Your task to perform on an android device: turn off javascript in the chrome app Image 0: 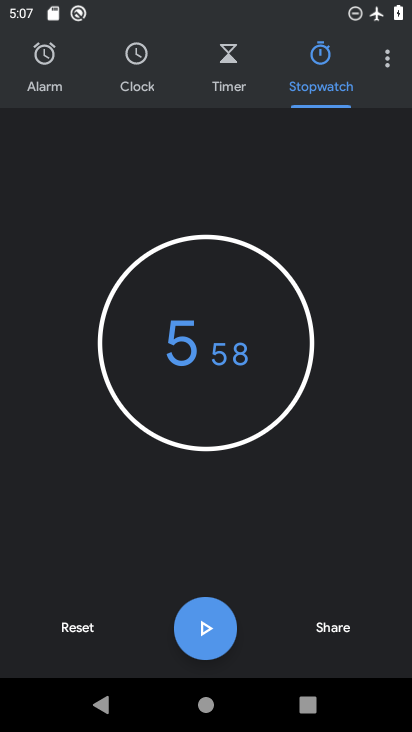
Step 0: press home button
Your task to perform on an android device: turn off javascript in the chrome app Image 1: 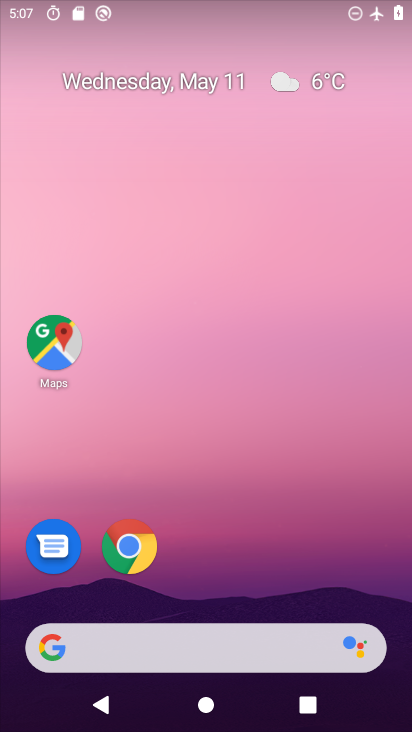
Step 1: click (128, 535)
Your task to perform on an android device: turn off javascript in the chrome app Image 2: 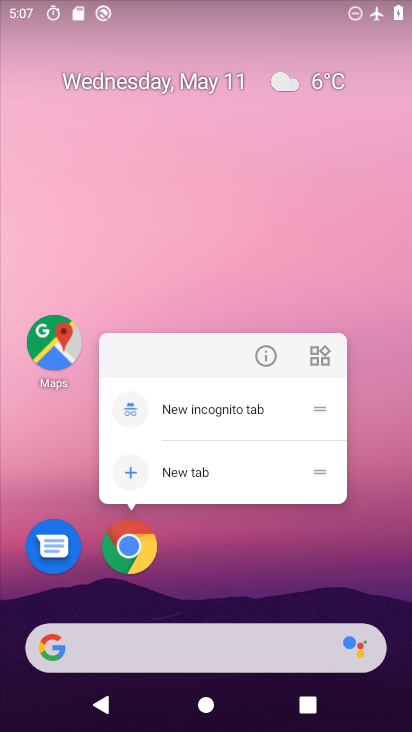
Step 2: click (63, 419)
Your task to perform on an android device: turn off javascript in the chrome app Image 3: 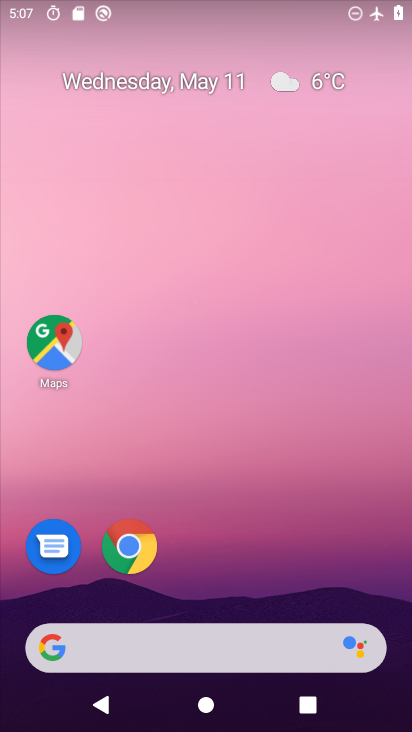
Step 3: click (123, 555)
Your task to perform on an android device: turn off javascript in the chrome app Image 4: 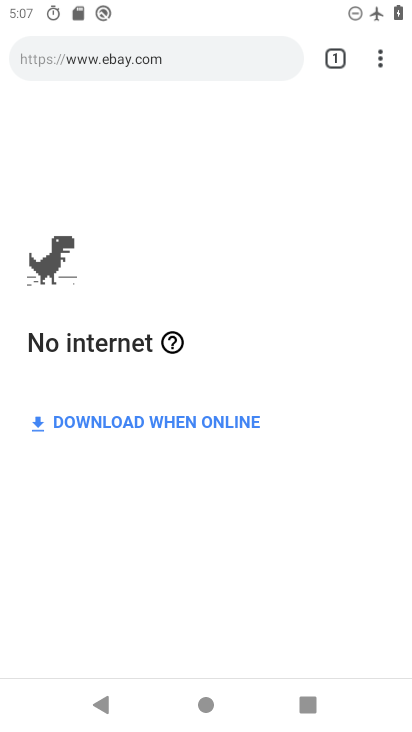
Step 4: click (386, 60)
Your task to perform on an android device: turn off javascript in the chrome app Image 5: 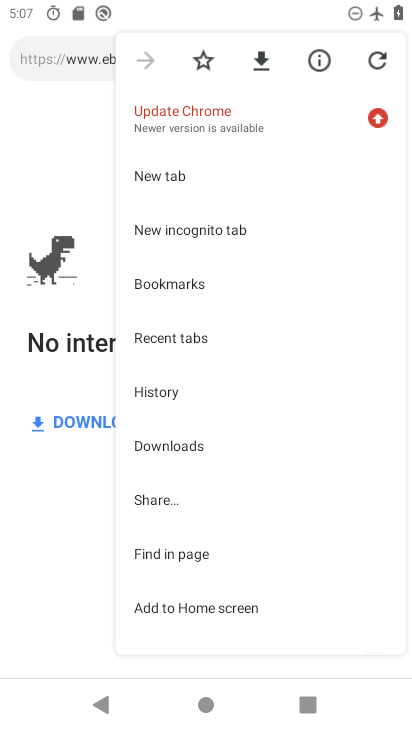
Step 5: drag from (190, 613) to (153, 269)
Your task to perform on an android device: turn off javascript in the chrome app Image 6: 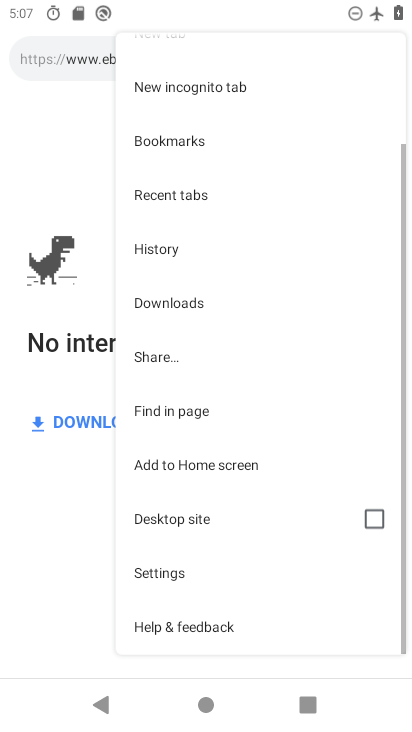
Step 6: click (169, 574)
Your task to perform on an android device: turn off javascript in the chrome app Image 7: 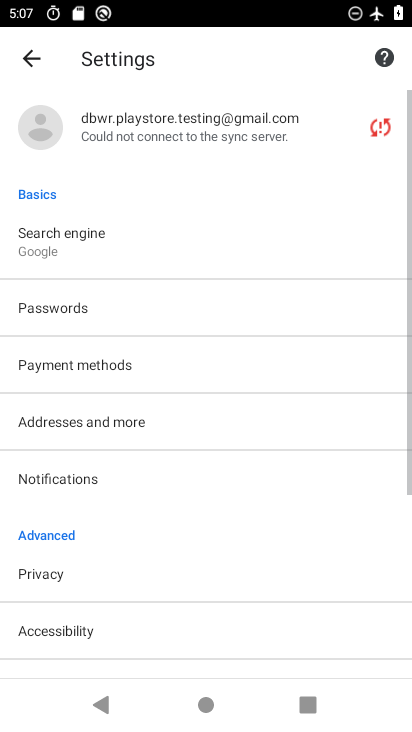
Step 7: drag from (135, 640) to (96, 286)
Your task to perform on an android device: turn off javascript in the chrome app Image 8: 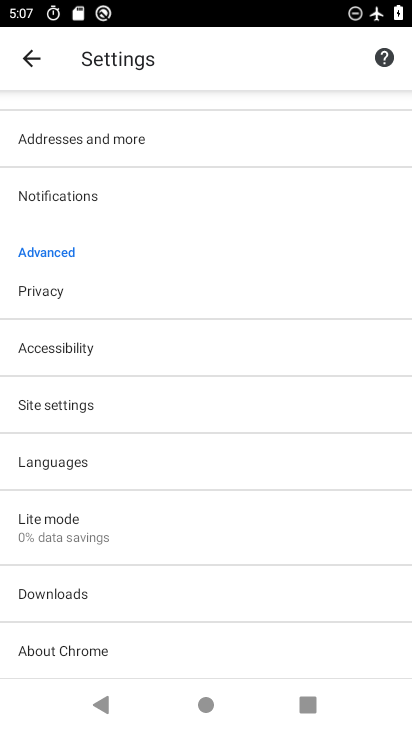
Step 8: drag from (64, 674) to (60, 361)
Your task to perform on an android device: turn off javascript in the chrome app Image 9: 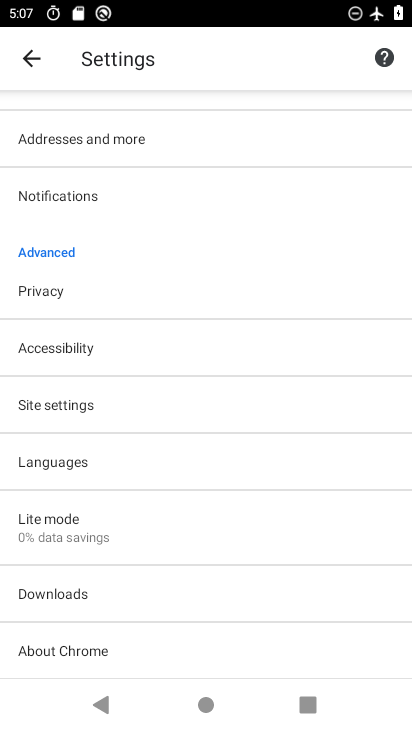
Step 9: click (53, 403)
Your task to perform on an android device: turn off javascript in the chrome app Image 10: 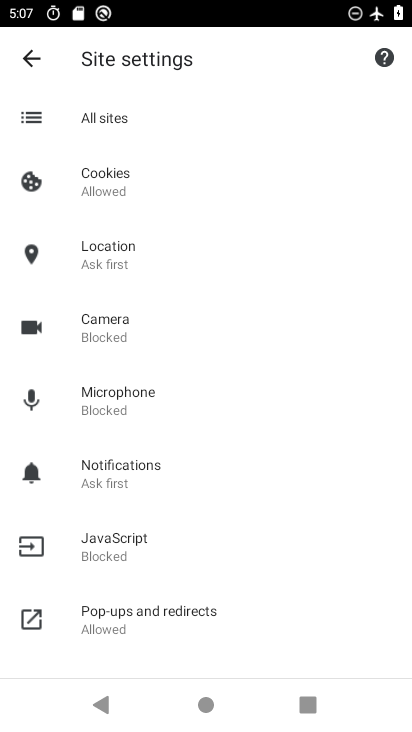
Step 10: click (98, 553)
Your task to perform on an android device: turn off javascript in the chrome app Image 11: 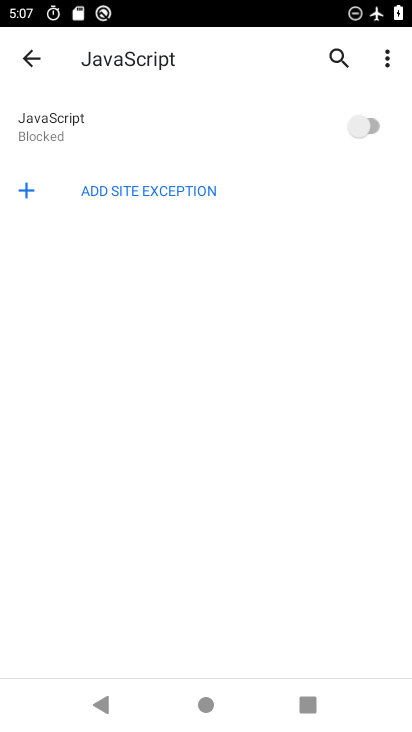
Step 11: task complete